Your task to perform on an android device: install app "Nova Launcher" Image 0: 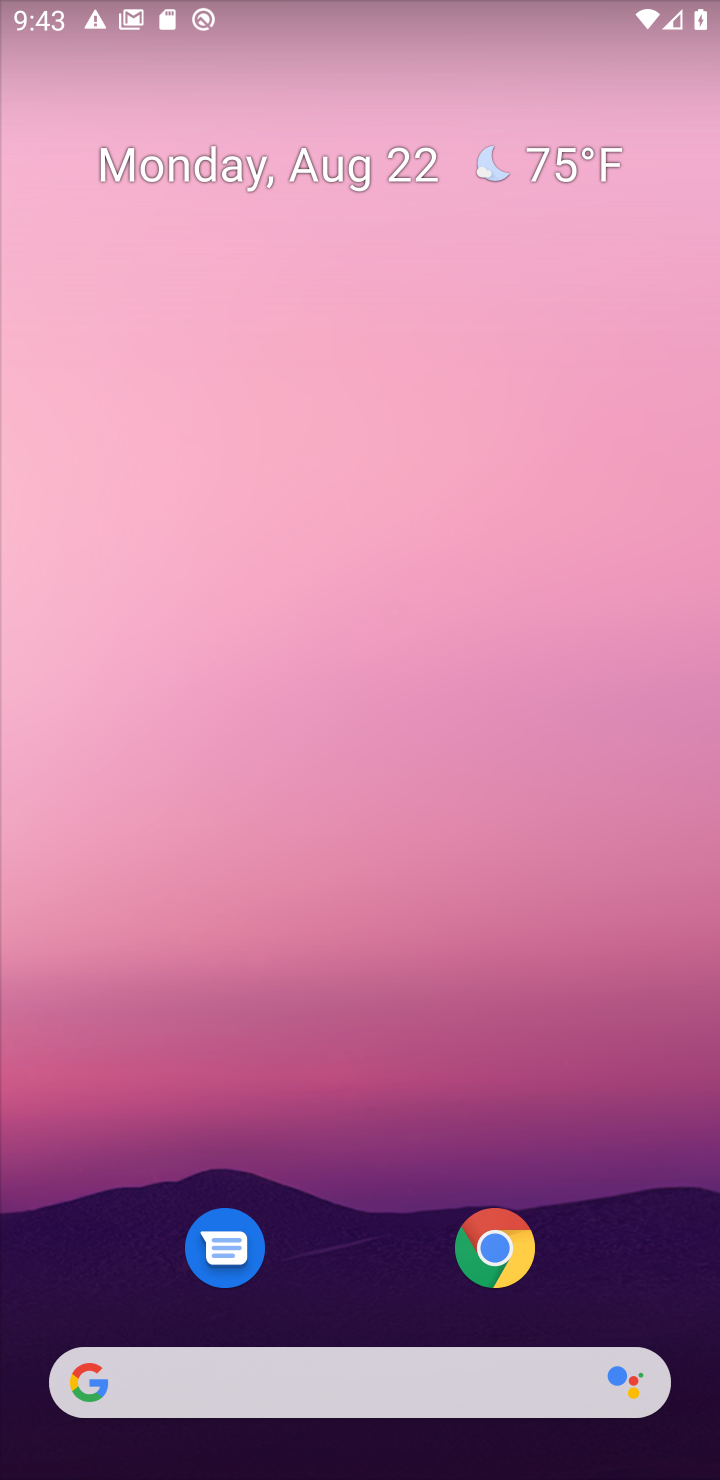
Step 0: drag from (368, 1255) to (366, 173)
Your task to perform on an android device: install app "Nova Launcher" Image 1: 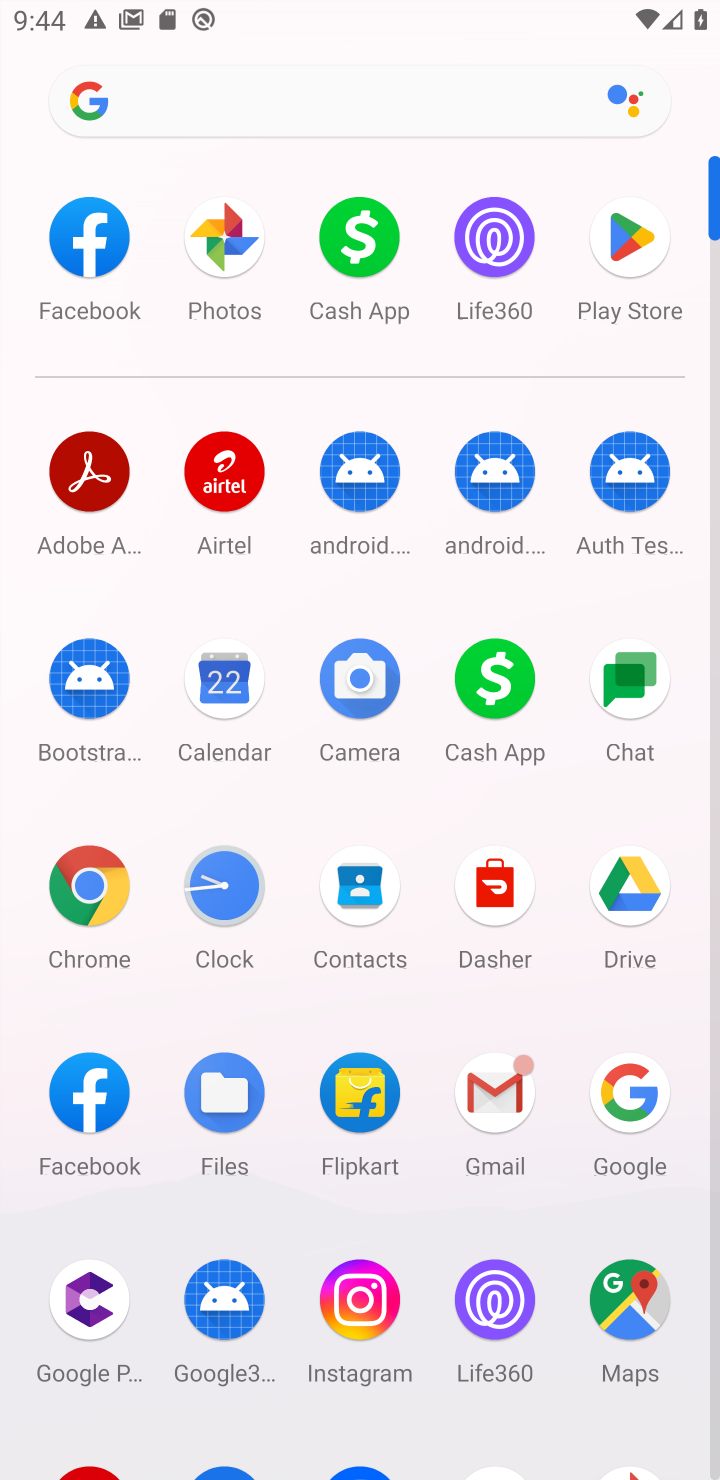
Step 1: click (631, 234)
Your task to perform on an android device: install app "Nova Launcher" Image 2: 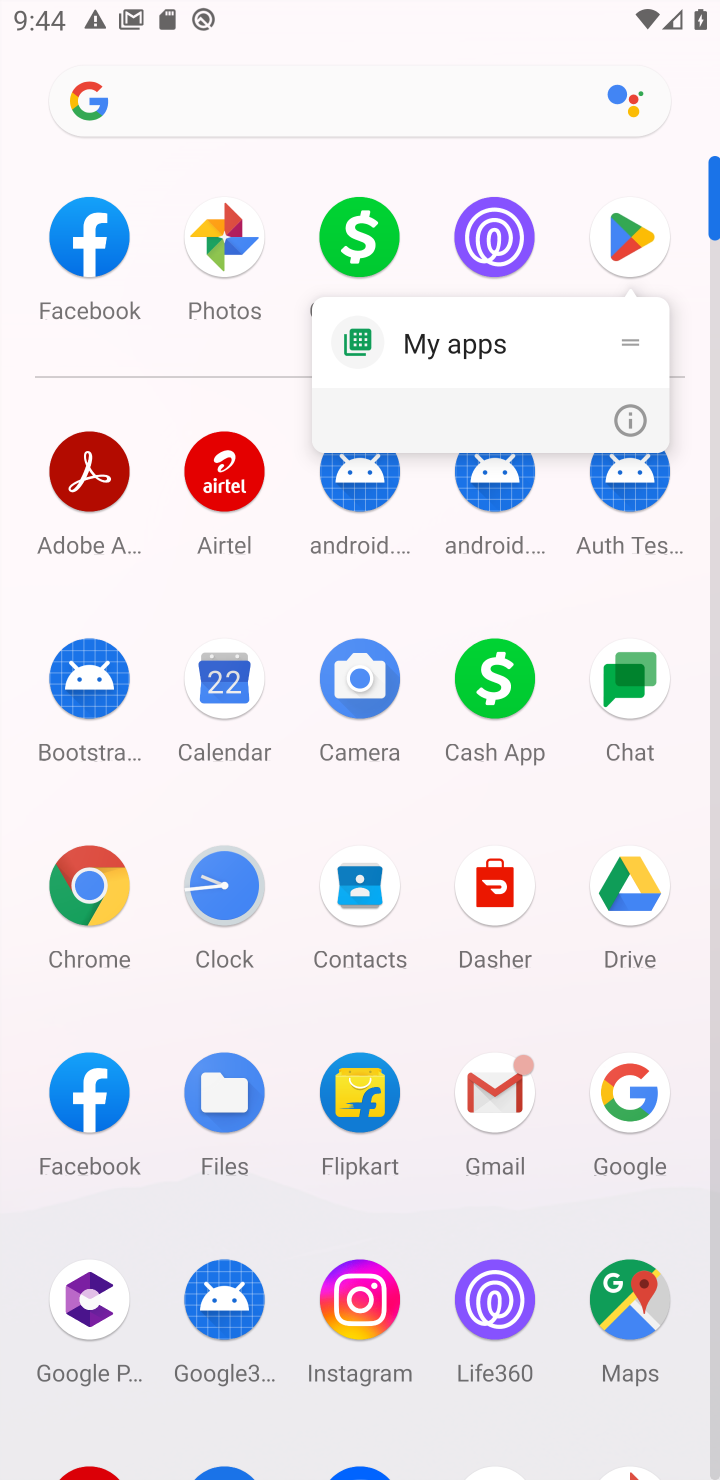
Step 2: click (631, 234)
Your task to perform on an android device: install app "Nova Launcher" Image 3: 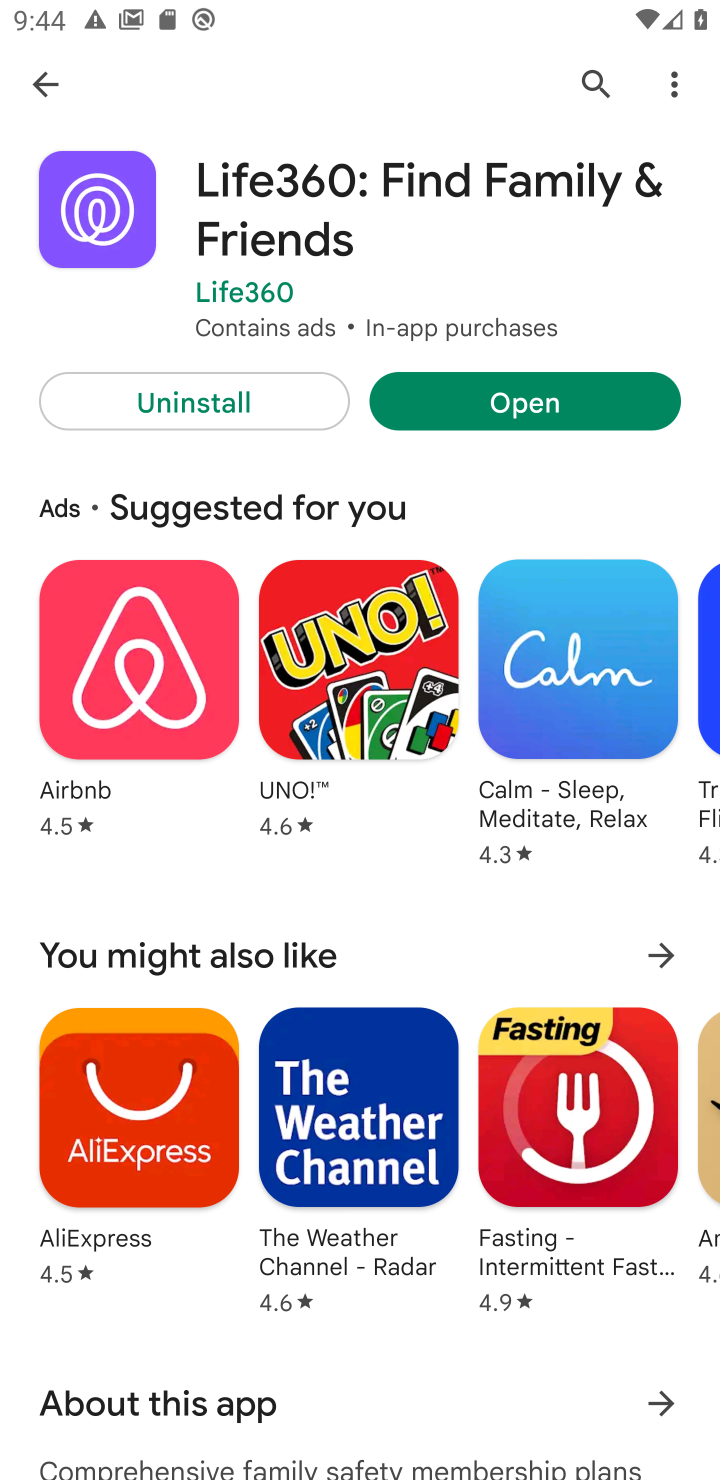
Step 3: click (592, 69)
Your task to perform on an android device: install app "Nova Launcher" Image 4: 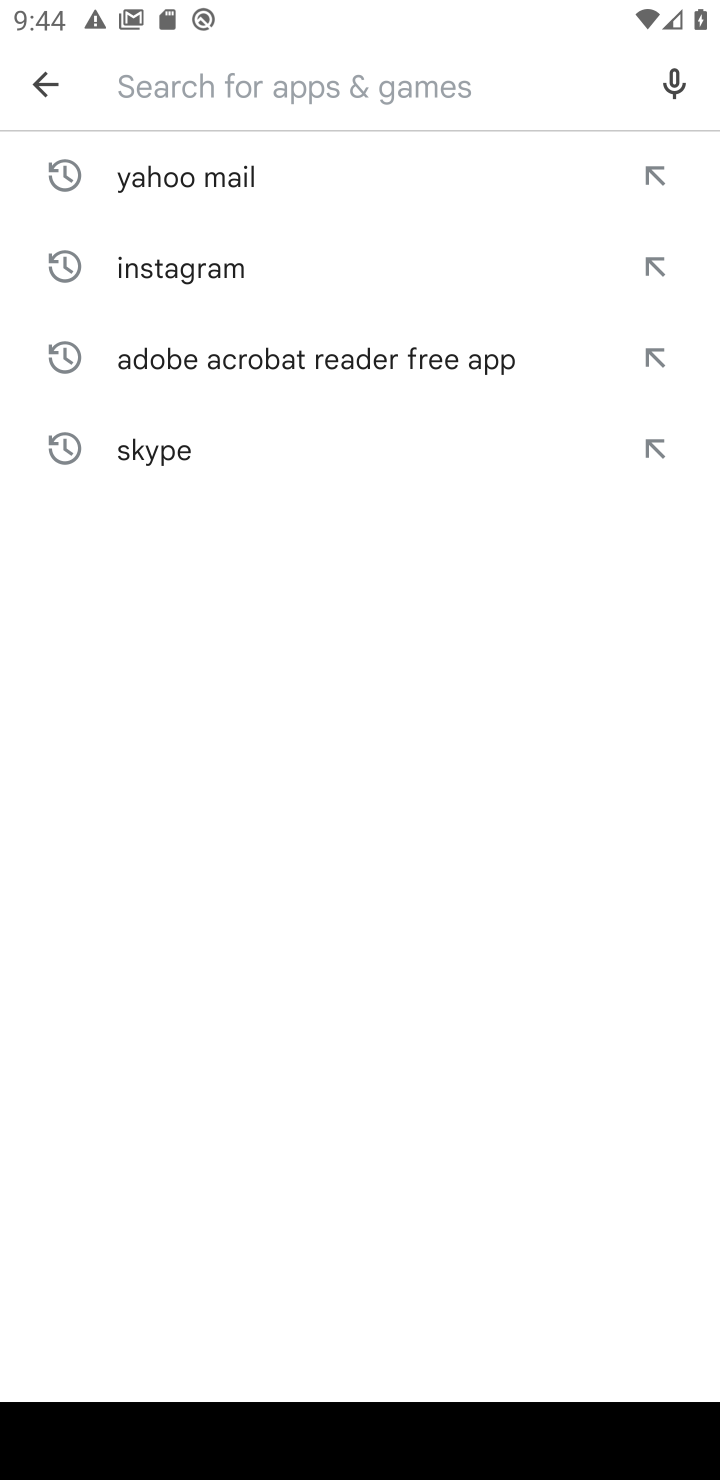
Step 4: type "Nova Launcher"
Your task to perform on an android device: install app "Nova Launcher" Image 5: 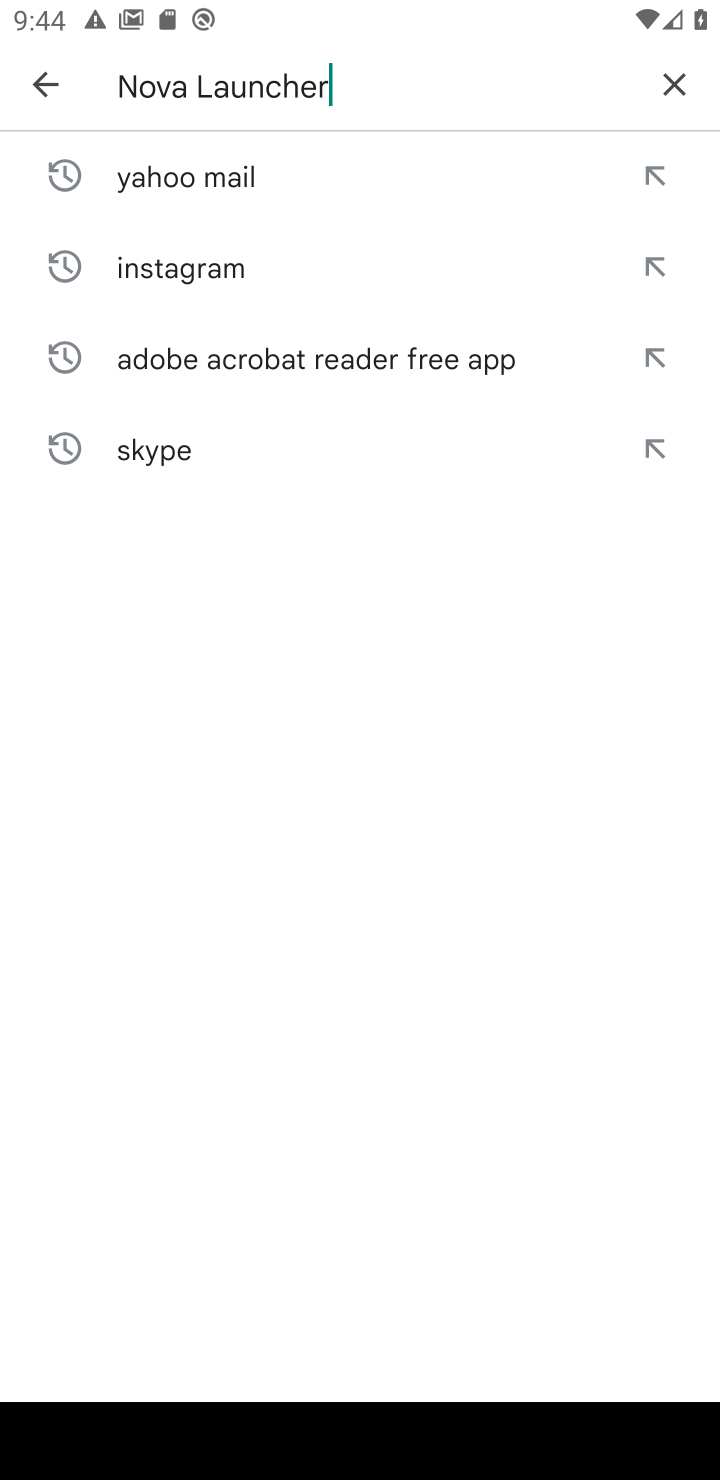
Step 5: type ""
Your task to perform on an android device: install app "Nova Launcher" Image 6: 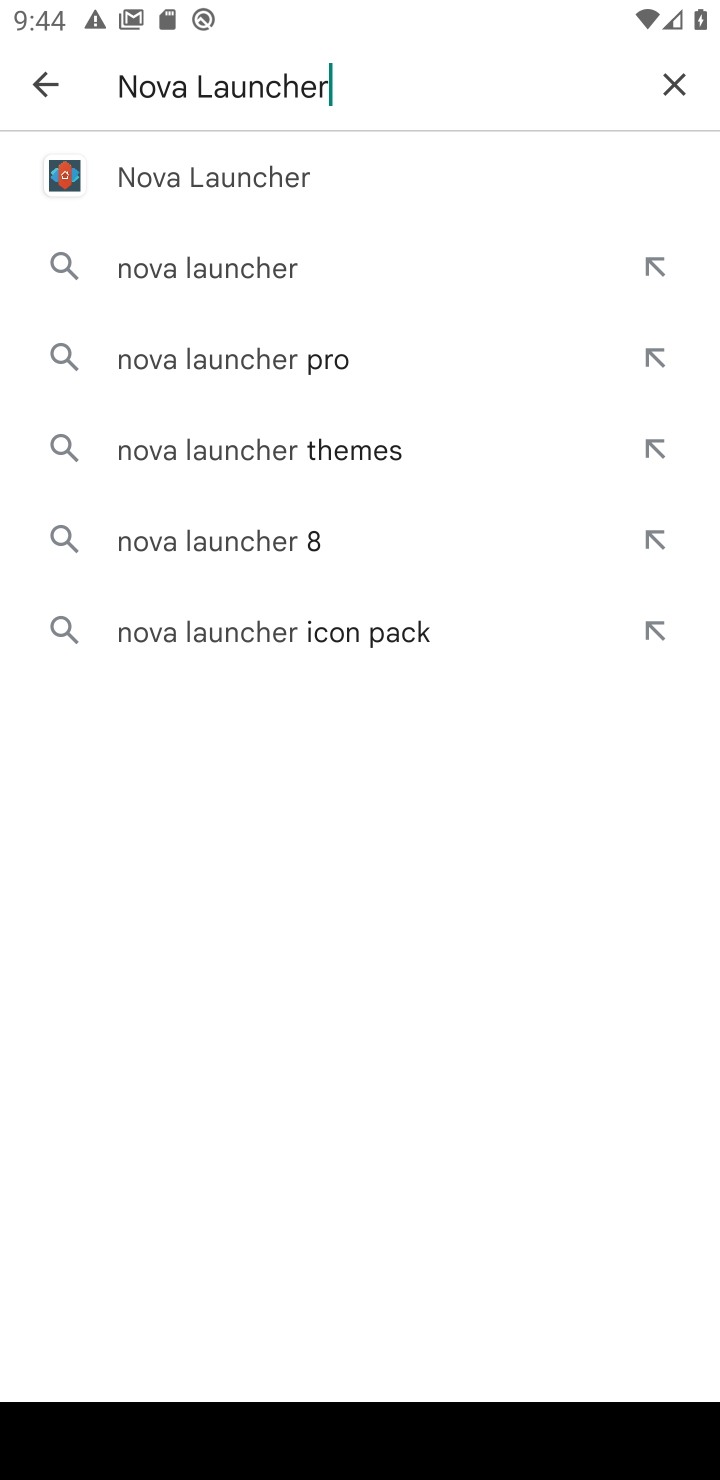
Step 6: click (186, 173)
Your task to perform on an android device: install app "Nova Launcher" Image 7: 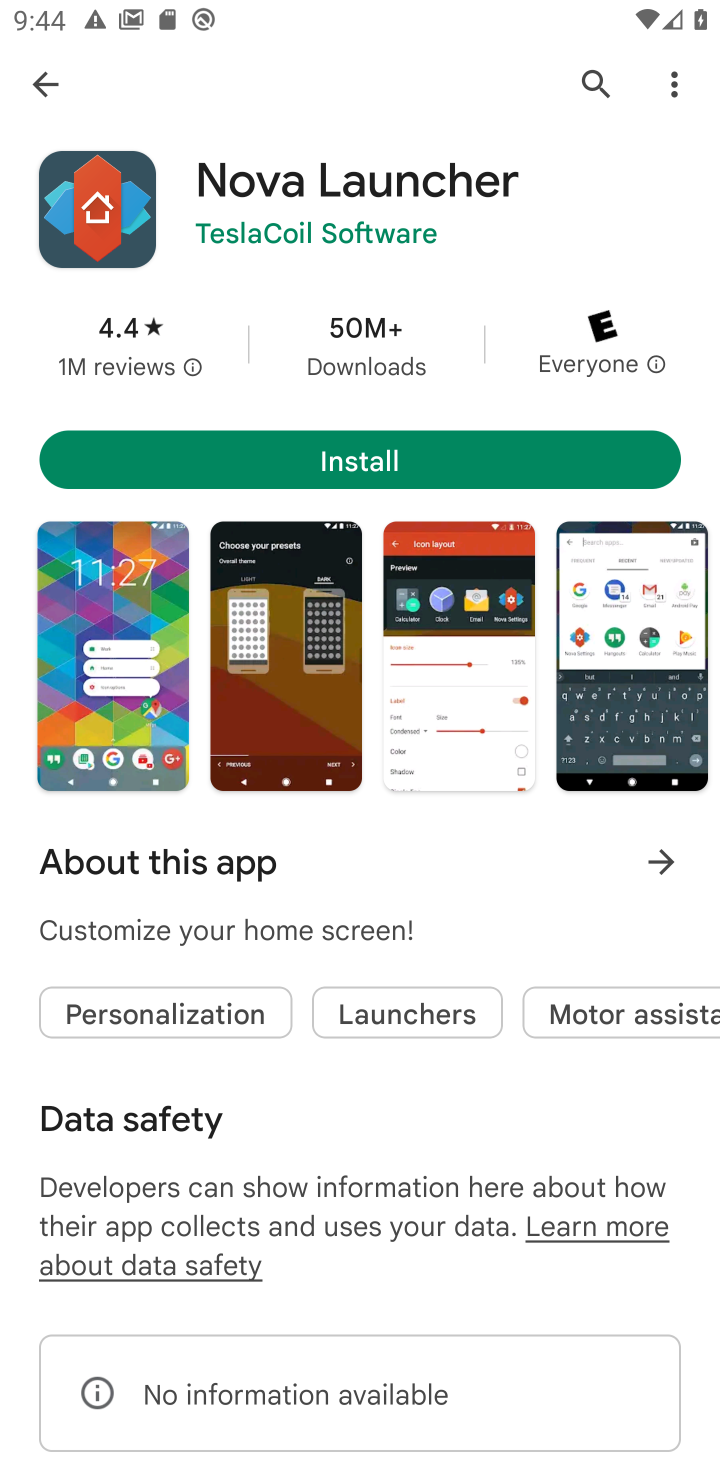
Step 7: click (351, 460)
Your task to perform on an android device: install app "Nova Launcher" Image 8: 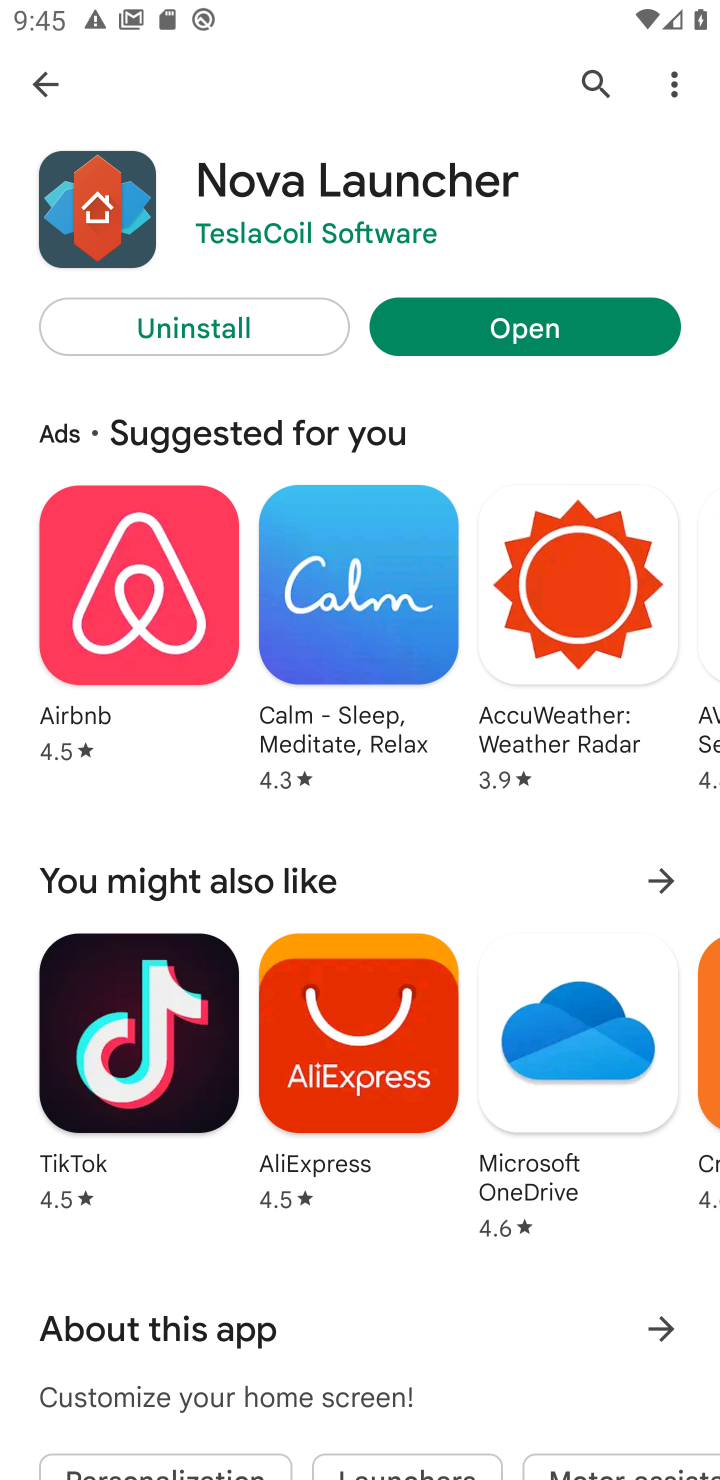
Step 8: task complete